Your task to perform on an android device: turn on location history Image 0: 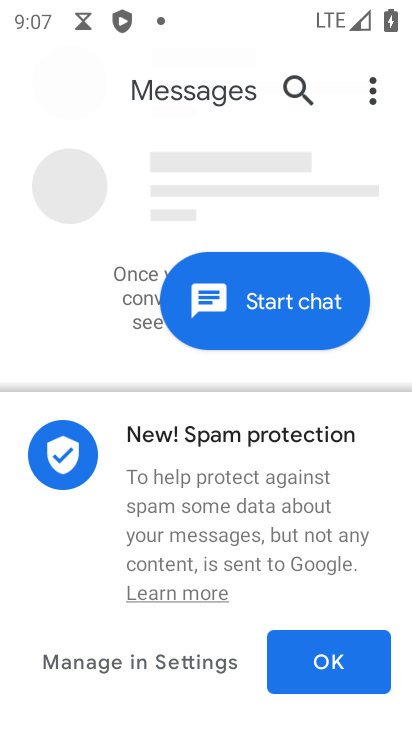
Step 0: press back button
Your task to perform on an android device: turn on location history Image 1: 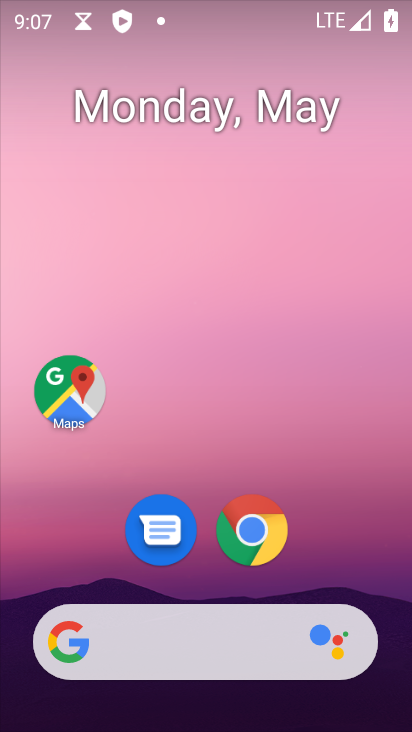
Step 1: drag from (333, 567) to (253, 63)
Your task to perform on an android device: turn on location history Image 2: 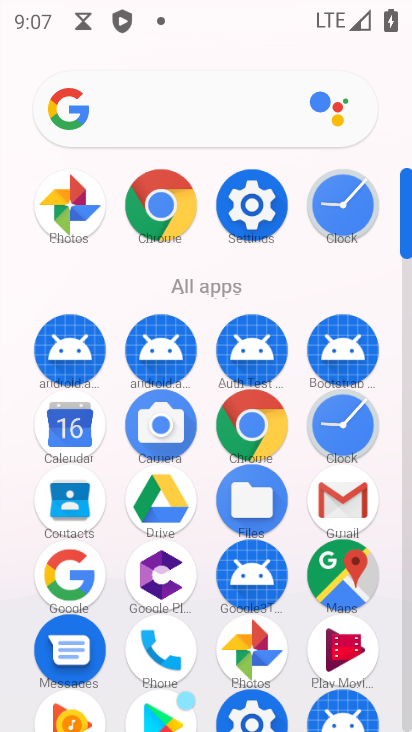
Step 2: click (250, 203)
Your task to perform on an android device: turn on location history Image 3: 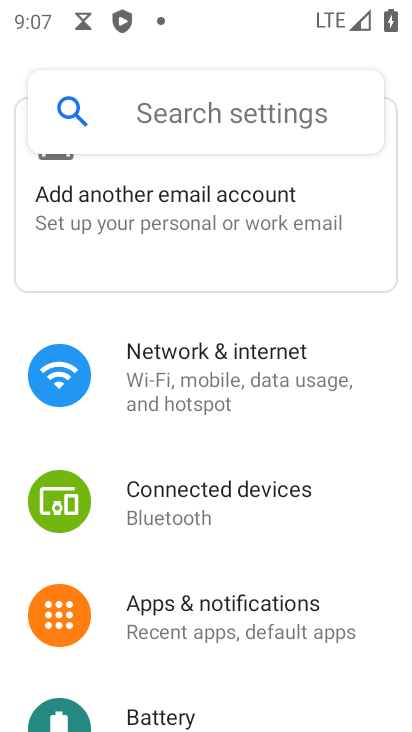
Step 3: drag from (296, 584) to (299, 224)
Your task to perform on an android device: turn on location history Image 4: 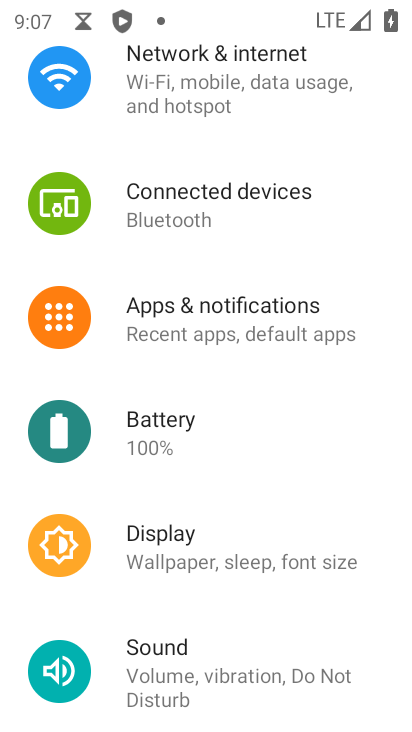
Step 4: drag from (298, 566) to (300, 144)
Your task to perform on an android device: turn on location history Image 5: 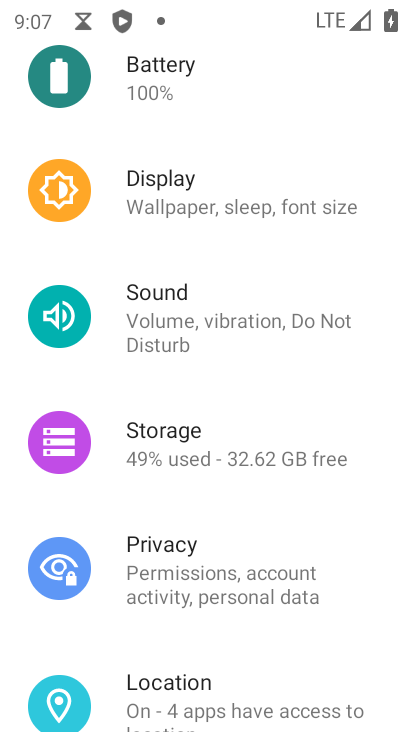
Step 5: click (222, 685)
Your task to perform on an android device: turn on location history Image 6: 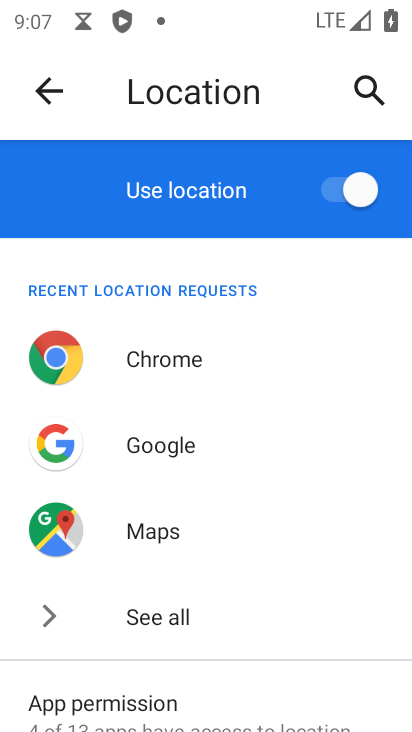
Step 6: drag from (232, 503) to (227, 142)
Your task to perform on an android device: turn on location history Image 7: 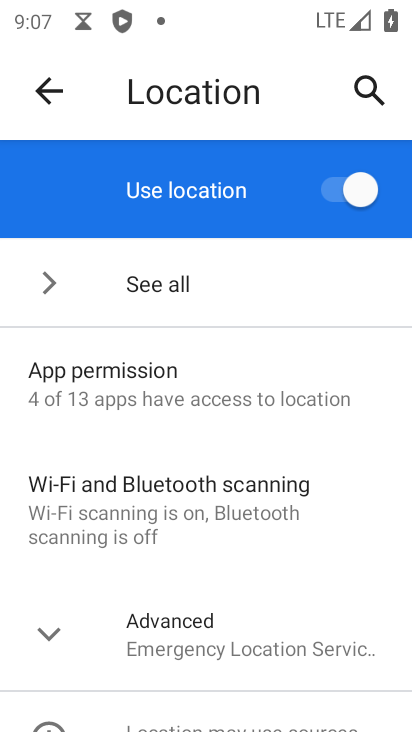
Step 7: click (55, 618)
Your task to perform on an android device: turn on location history Image 8: 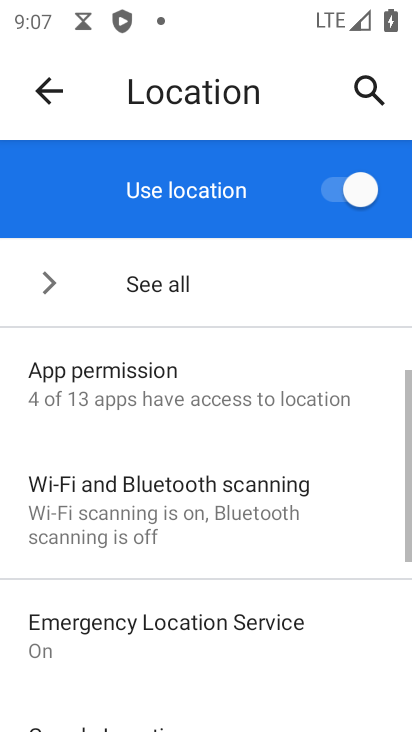
Step 8: drag from (231, 548) to (251, 197)
Your task to perform on an android device: turn on location history Image 9: 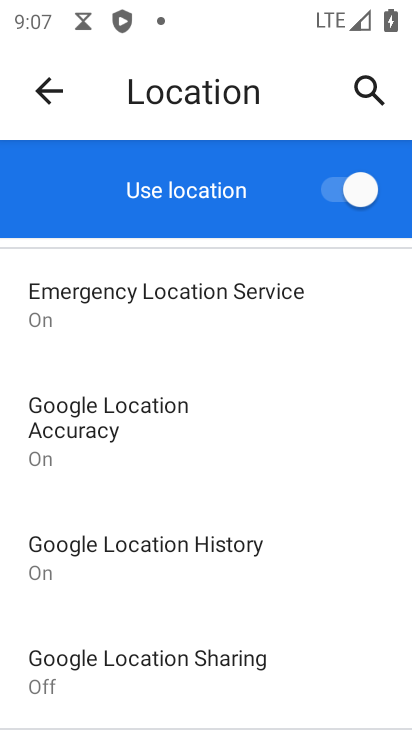
Step 9: click (180, 544)
Your task to perform on an android device: turn on location history Image 10: 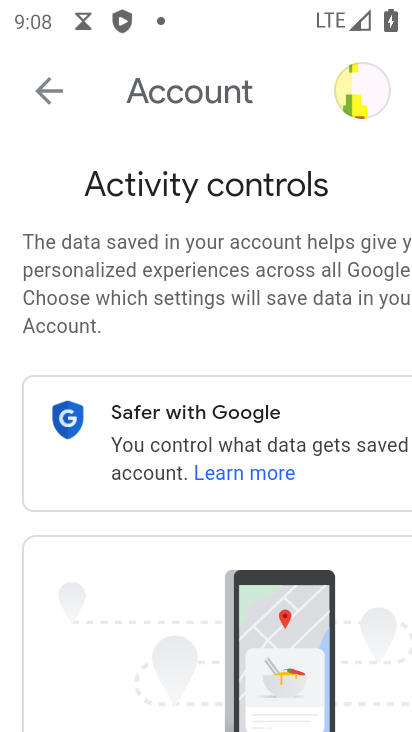
Step 10: task complete